Your task to perform on an android device: turn on notifications settings in the gmail app Image 0: 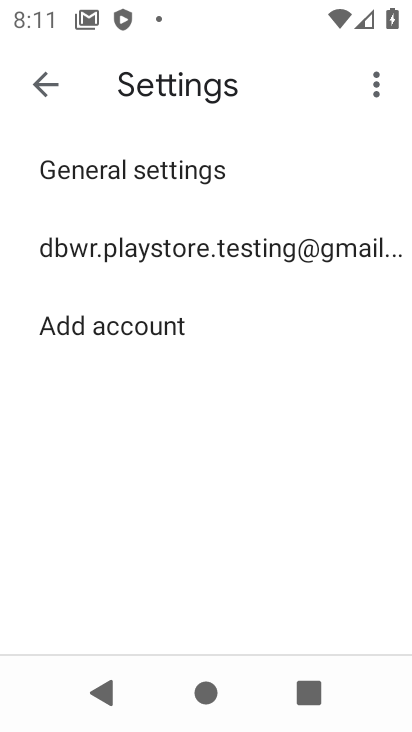
Step 0: press back button
Your task to perform on an android device: turn on notifications settings in the gmail app Image 1: 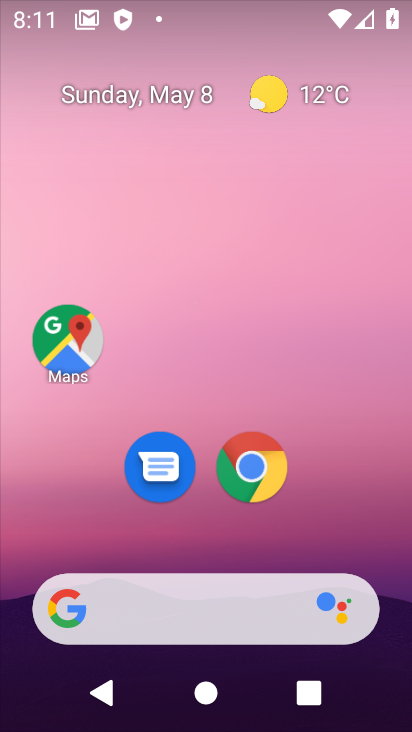
Step 1: drag from (214, 504) to (327, 58)
Your task to perform on an android device: turn on notifications settings in the gmail app Image 2: 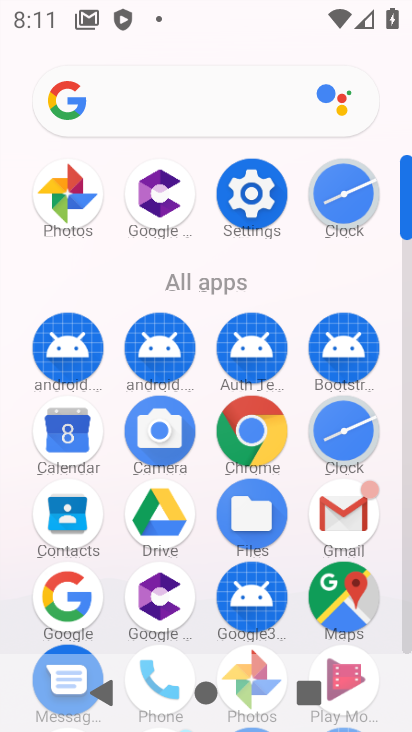
Step 2: click (350, 518)
Your task to perform on an android device: turn on notifications settings in the gmail app Image 3: 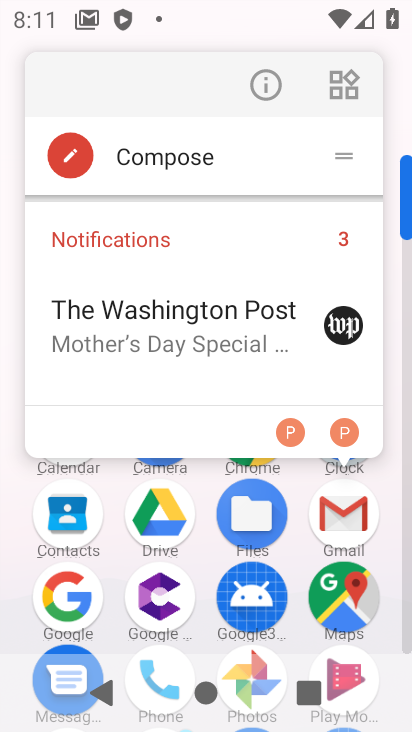
Step 3: click (270, 85)
Your task to perform on an android device: turn on notifications settings in the gmail app Image 4: 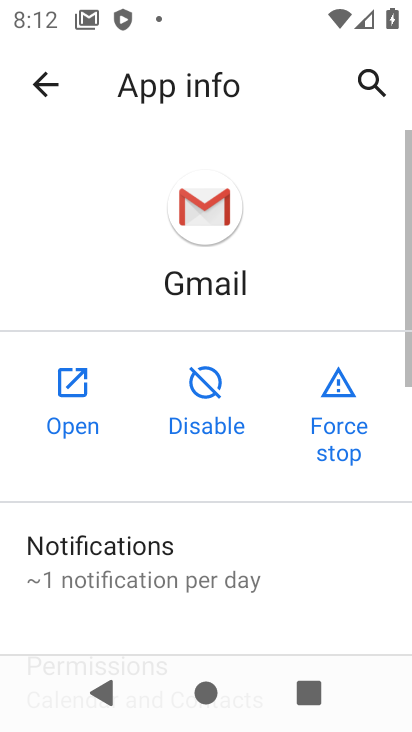
Step 4: click (110, 553)
Your task to perform on an android device: turn on notifications settings in the gmail app Image 5: 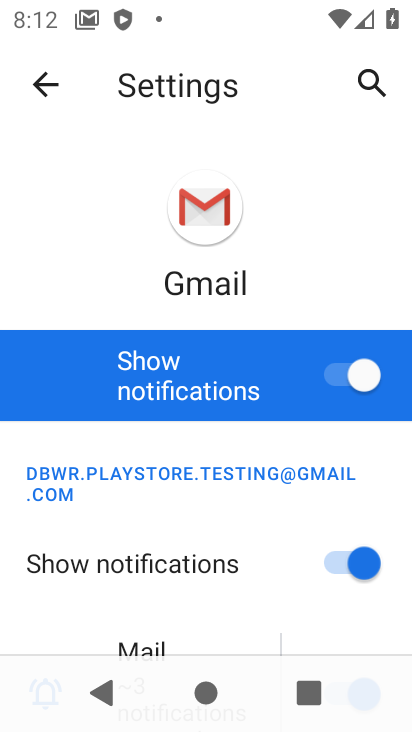
Step 5: task complete